Your task to perform on an android device: see tabs open on other devices in the chrome app Image 0: 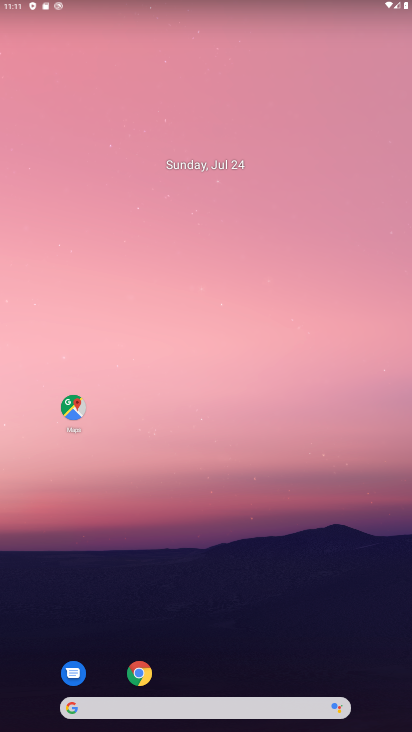
Step 0: click (140, 674)
Your task to perform on an android device: see tabs open on other devices in the chrome app Image 1: 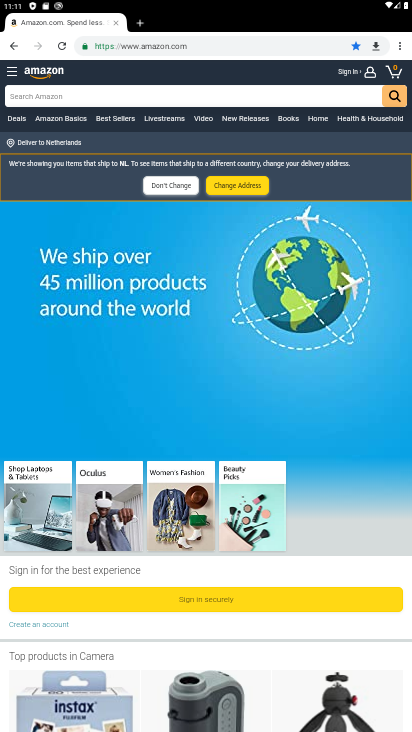
Step 1: click (401, 47)
Your task to perform on an android device: see tabs open on other devices in the chrome app Image 2: 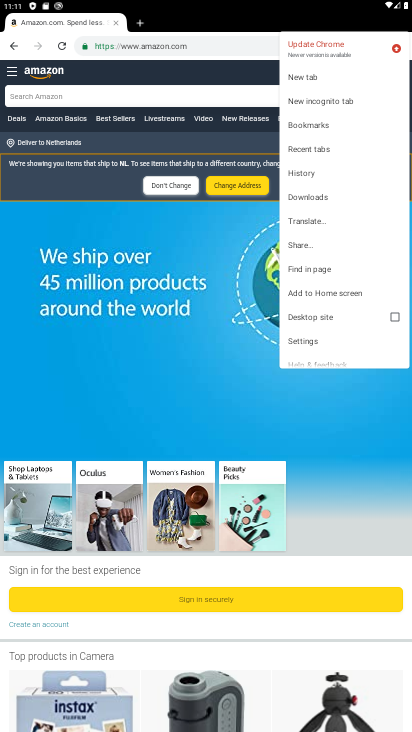
Step 2: click (324, 148)
Your task to perform on an android device: see tabs open on other devices in the chrome app Image 3: 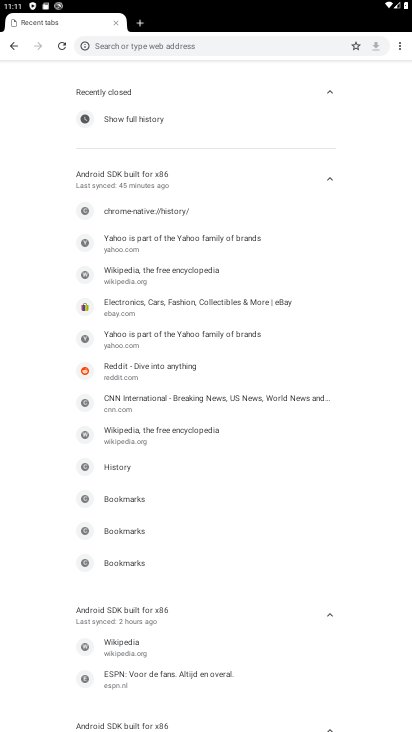
Step 3: task complete